Your task to perform on an android device: Open Google Chrome and open the bookmarks view Image 0: 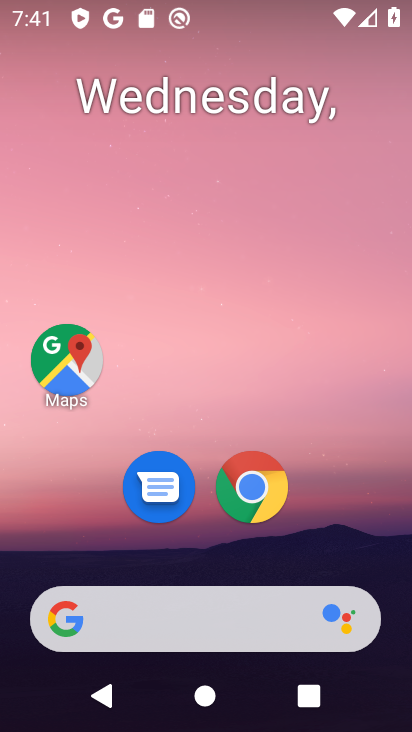
Step 0: drag from (216, 708) to (217, 153)
Your task to perform on an android device: Open Google Chrome and open the bookmarks view Image 1: 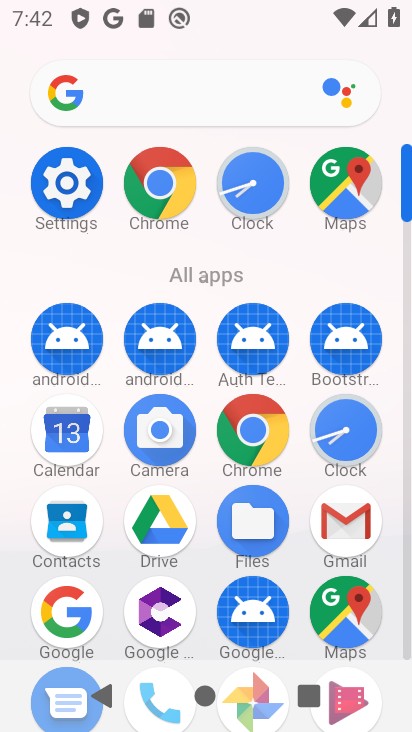
Step 1: click (262, 432)
Your task to perform on an android device: Open Google Chrome and open the bookmarks view Image 2: 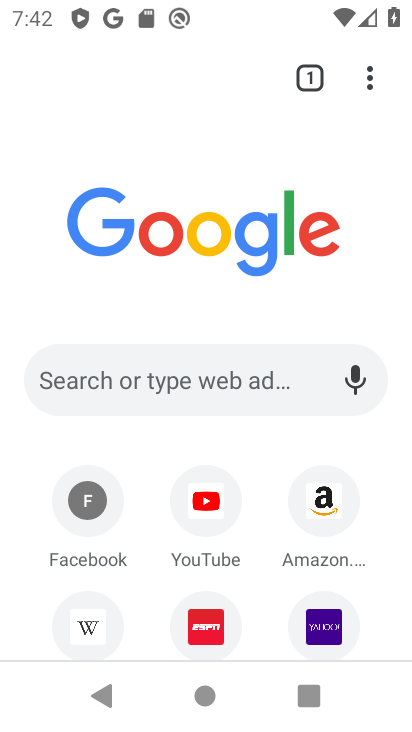
Step 2: click (379, 98)
Your task to perform on an android device: Open Google Chrome and open the bookmarks view Image 3: 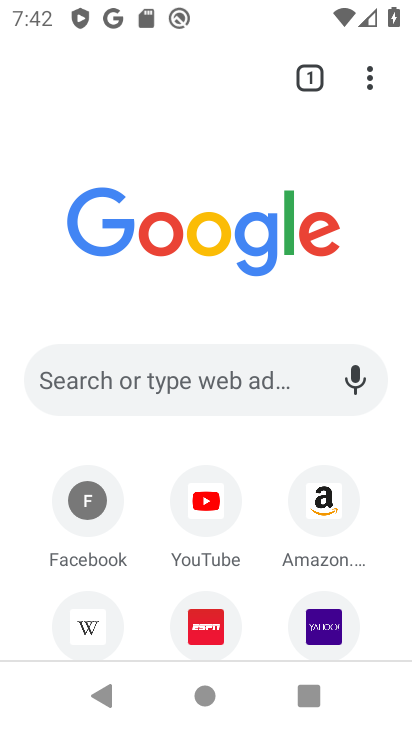
Step 3: click (367, 90)
Your task to perform on an android device: Open Google Chrome and open the bookmarks view Image 4: 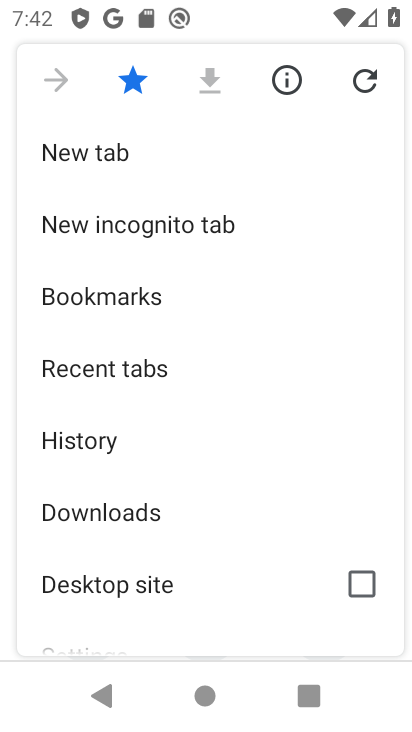
Step 4: click (103, 297)
Your task to perform on an android device: Open Google Chrome and open the bookmarks view Image 5: 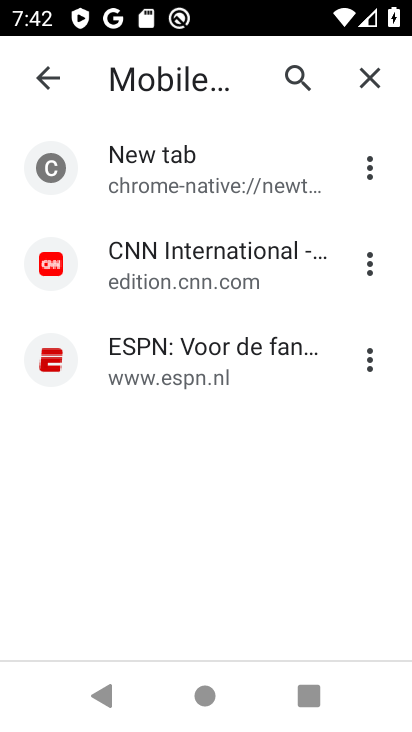
Step 5: task complete